Your task to perform on an android device: Go to sound settings Image 0: 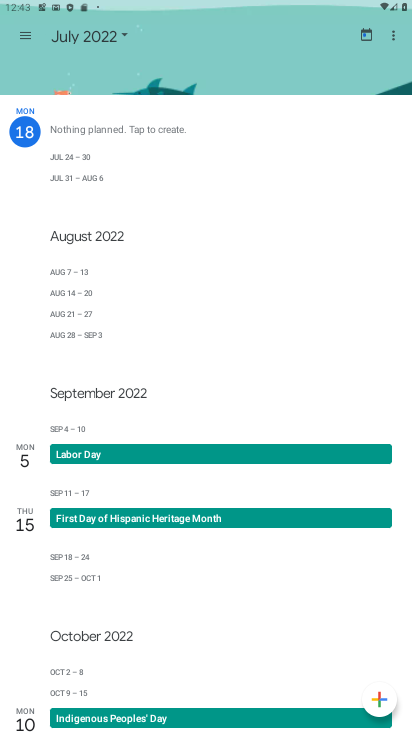
Step 0: press home button
Your task to perform on an android device: Go to sound settings Image 1: 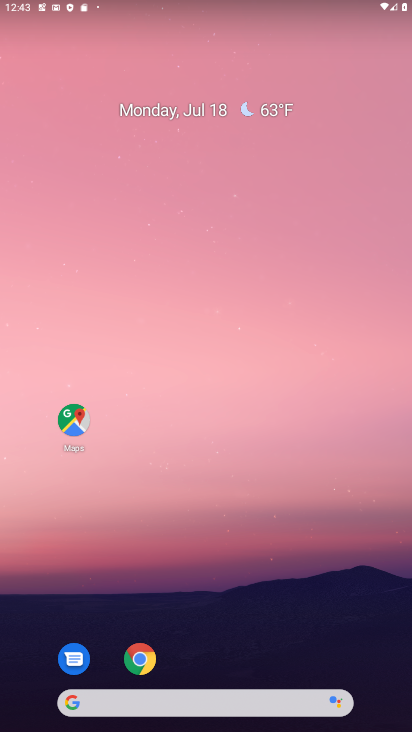
Step 1: drag from (165, 590) to (177, 213)
Your task to perform on an android device: Go to sound settings Image 2: 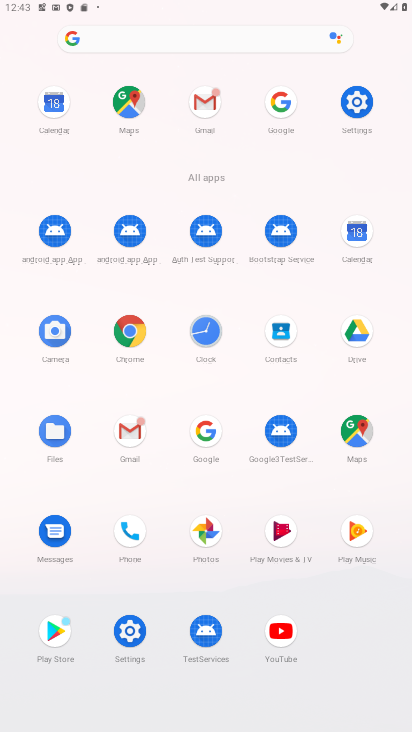
Step 2: click (353, 97)
Your task to perform on an android device: Go to sound settings Image 3: 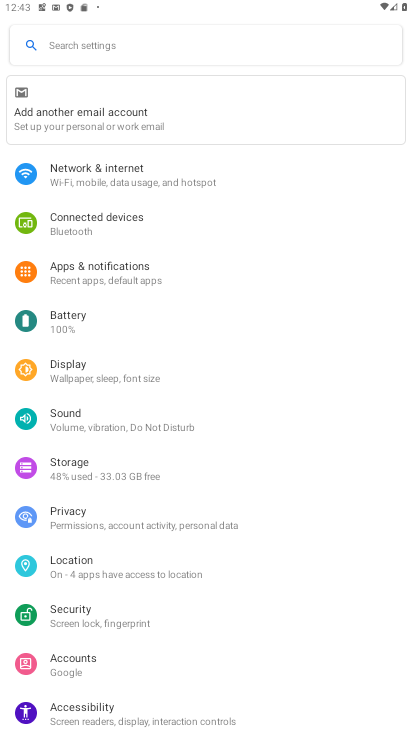
Step 3: click (71, 413)
Your task to perform on an android device: Go to sound settings Image 4: 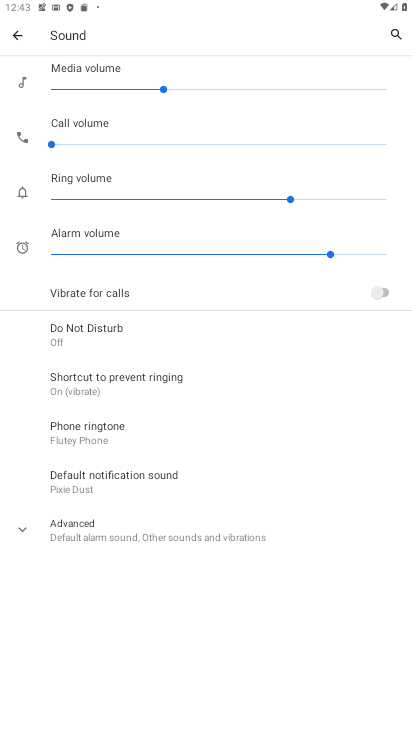
Step 4: click (107, 535)
Your task to perform on an android device: Go to sound settings Image 5: 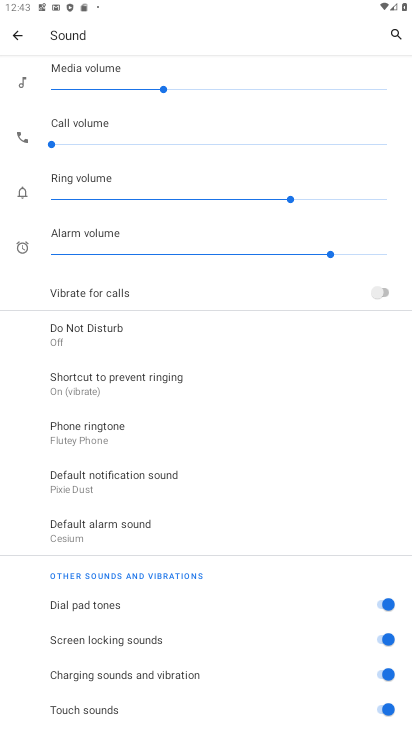
Step 5: task complete